Your task to perform on an android device: Open Yahoo.com Image 0: 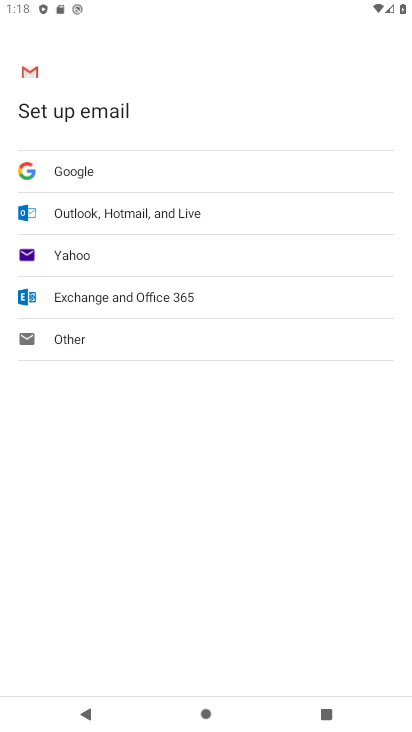
Step 0: press home button
Your task to perform on an android device: Open Yahoo.com Image 1: 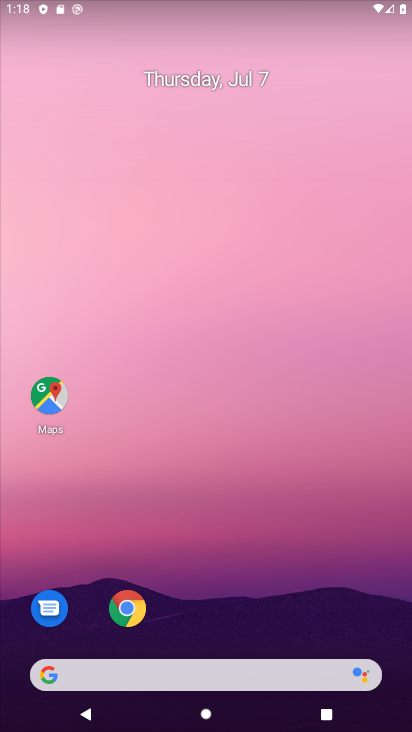
Step 1: drag from (223, 624) to (284, 73)
Your task to perform on an android device: Open Yahoo.com Image 2: 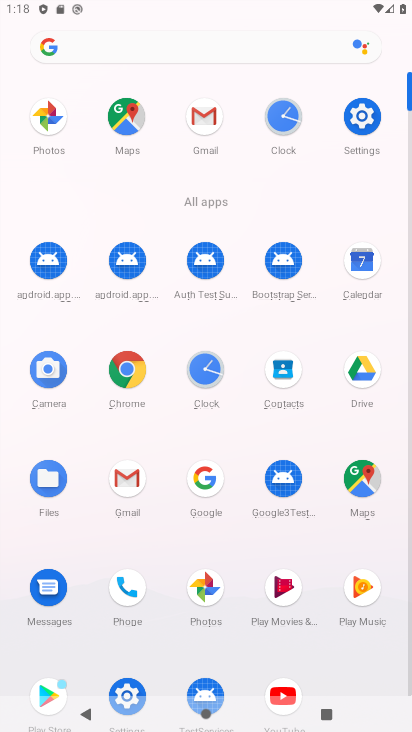
Step 2: click (115, 381)
Your task to perform on an android device: Open Yahoo.com Image 3: 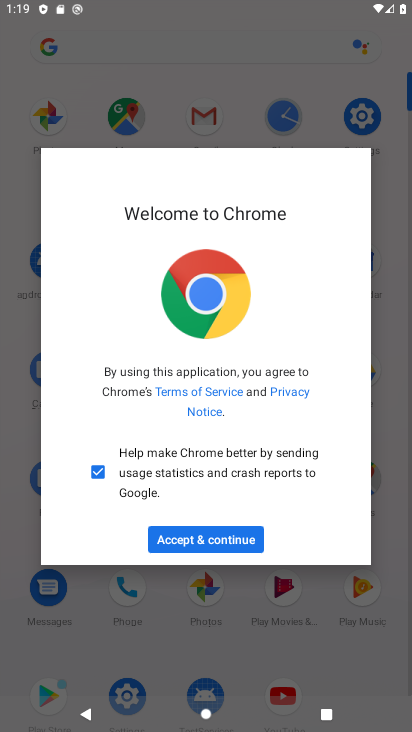
Step 3: click (177, 545)
Your task to perform on an android device: Open Yahoo.com Image 4: 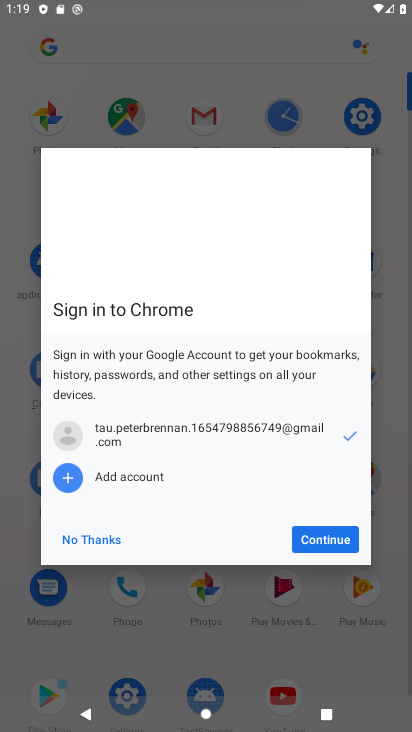
Step 4: click (92, 536)
Your task to perform on an android device: Open Yahoo.com Image 5: 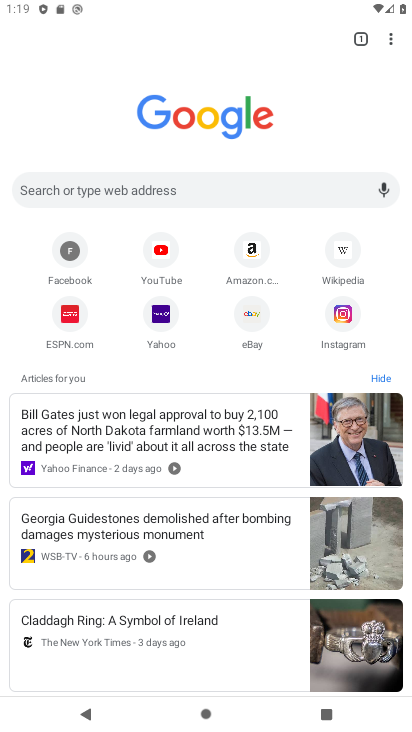
Step 5: click (168, 313)
Your task to perform on an android device: Open Yahoo.com Image 6: 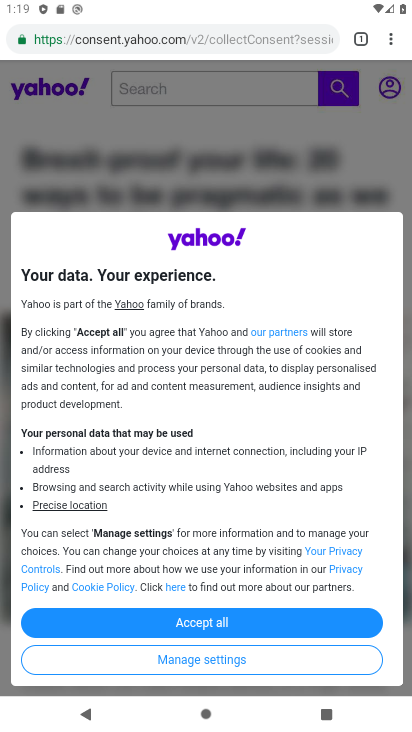
Step 6: task complete